Your task to perform on an android device: Open internet settings Image 0: 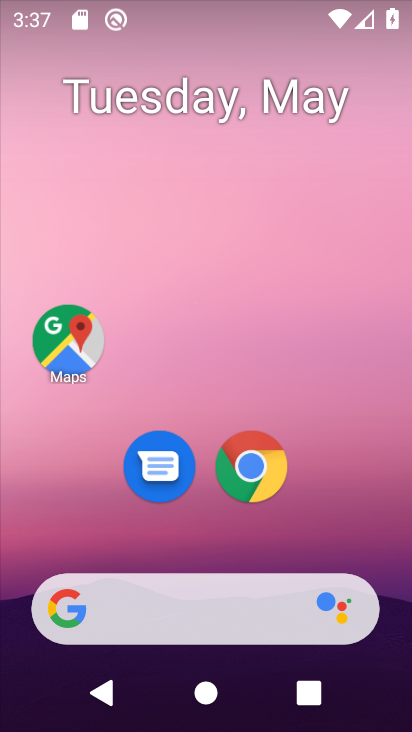
Step 0: drag from (295, 517) to (249, 89)
Your task to perform on an android device: Open internet settings Image 1: 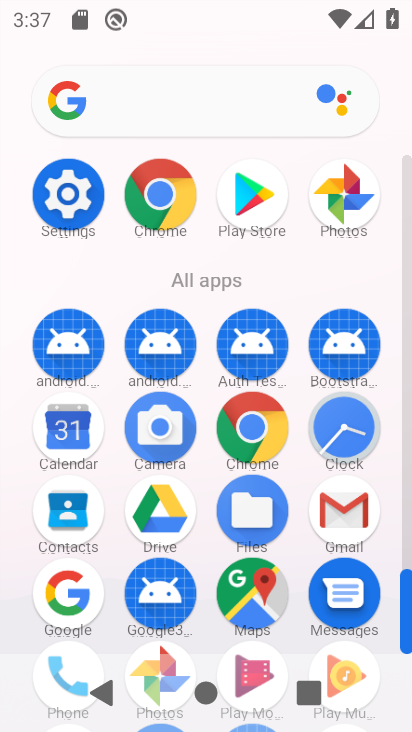
Step 1: click (62, 189)
Your task to perform on an android device: Open internet settings Image 2: 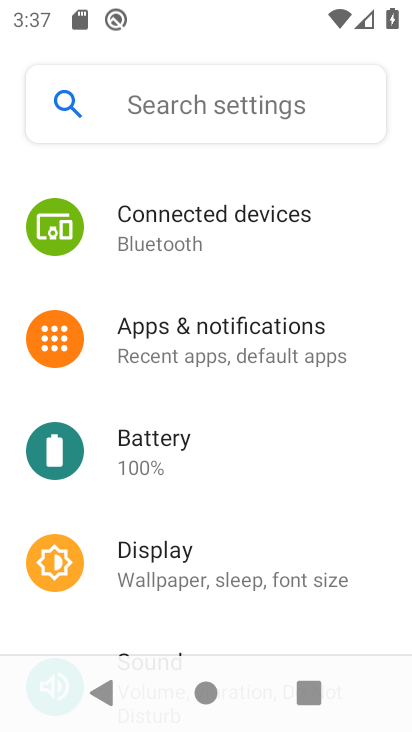
Step 2: drag from (257, 190) to (256, 542)
Your task to perform on an android device: Open internet settings Image 3: 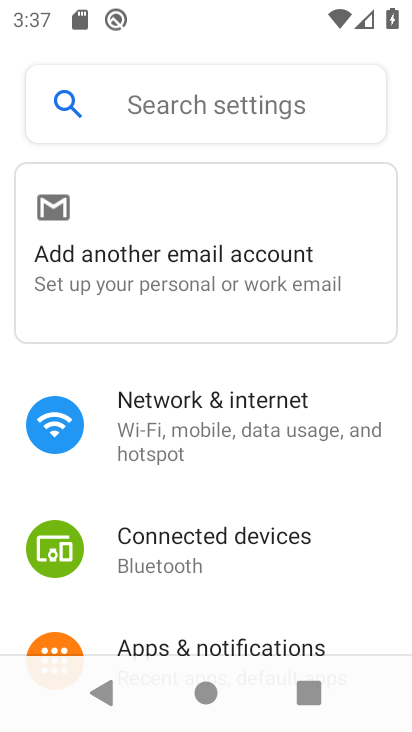
Step 3: click (216, 423)
Your task to perform on an android device: Open internet settings Image 4: 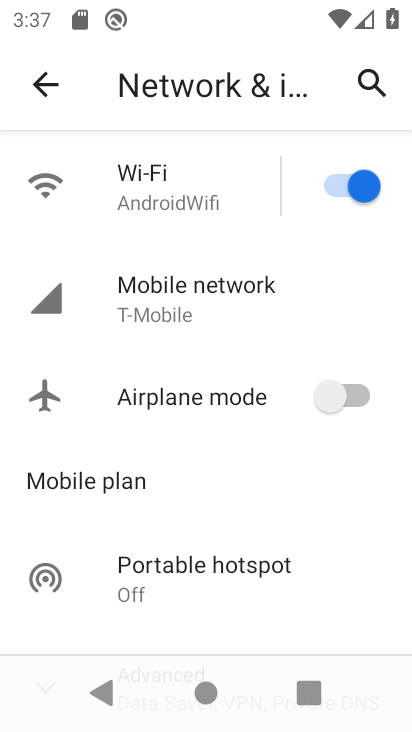
Step 4: task complete